Your task to perform on an android device: Open Amazon Image 0: 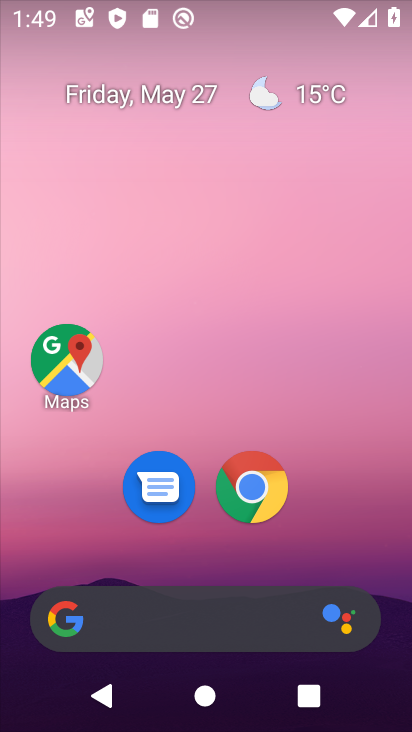
Step 0: click (252, 484)
Your task to perform on an android device: Open Amazon Image 1: 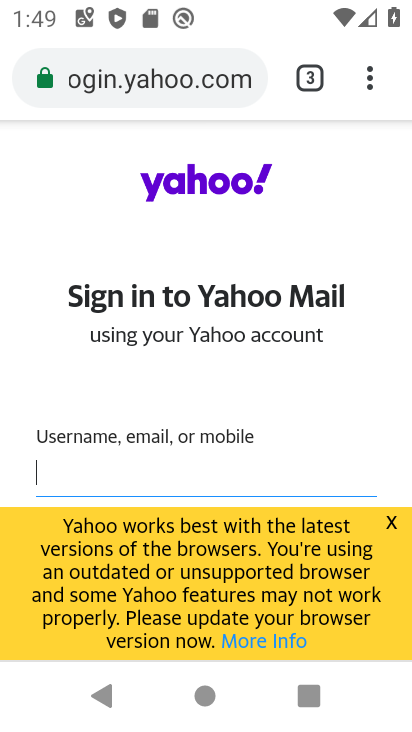
Step 1: click (310, 77)
Your task to perform on an android device: Open Amazon Image 2: 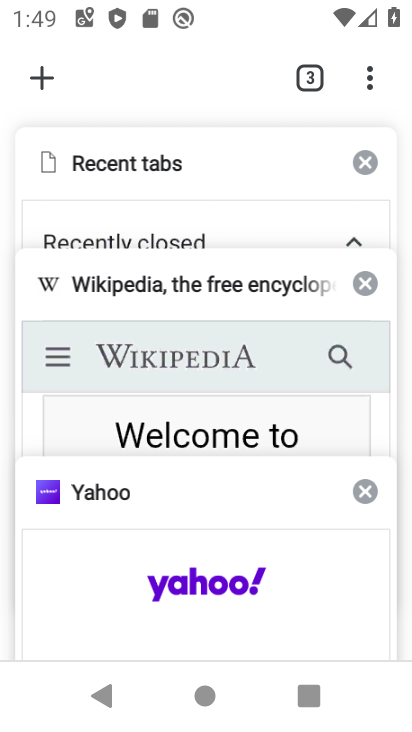
Step 2: click (47, 79)
Your task to perform on an android device: Open Amazon Image 3: 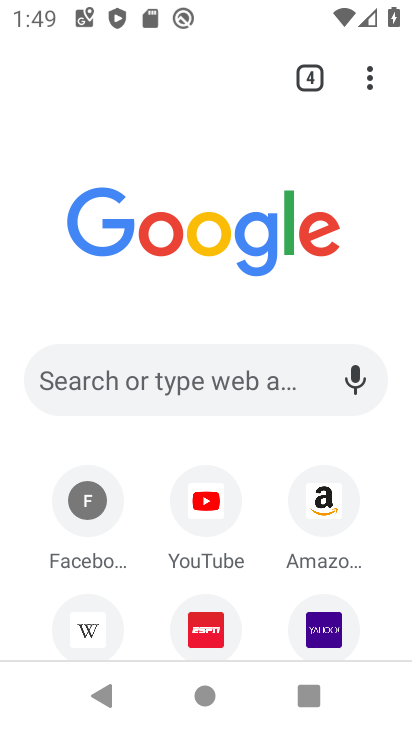
Step 3: click (310, 495)
Your task to perform on an android device: Open Amazon Image 4: 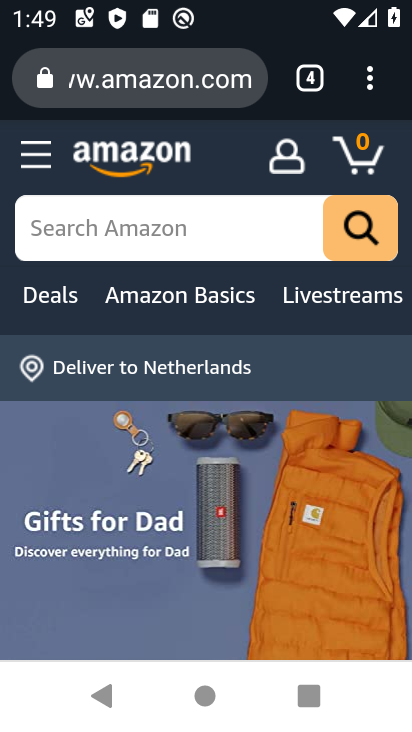
Step 4: task complete